Your task to perform on an android device: turn off sleep mode Image 0: 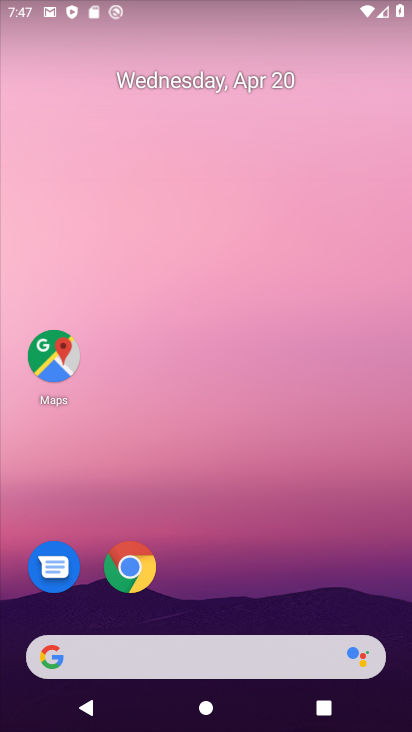
Step 0: drag from (177, 35) to (211, 15)
Your task to perform on an android device: turn off sleep mode Image 1: 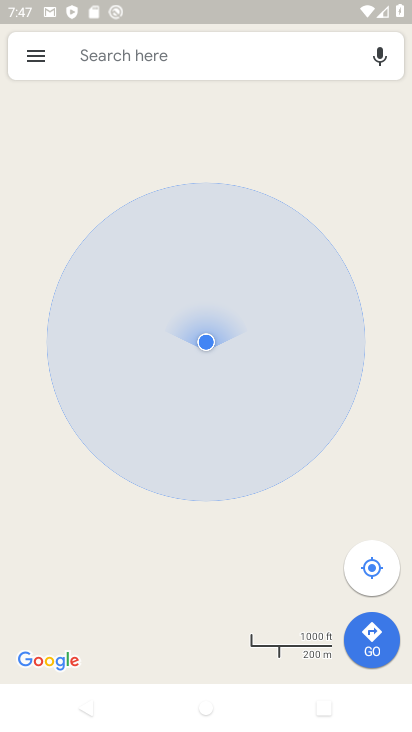
Step 1: press home button
Your task to perform on an android device: turn off sleep mode Image 2: 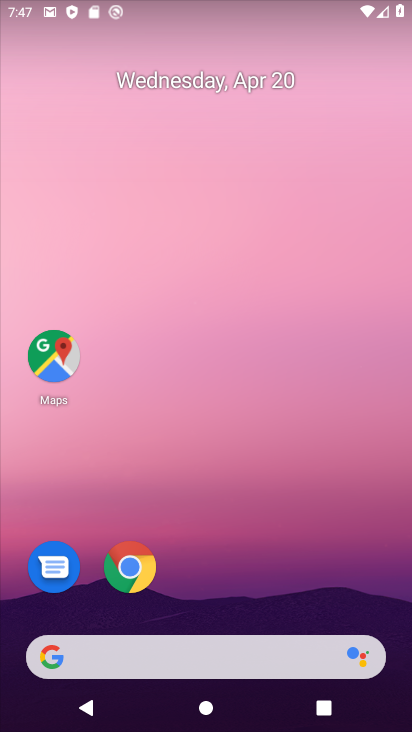
Step 2: click (176, 177)
Your task to perform on an android device: turn off sleep mode Image 3: 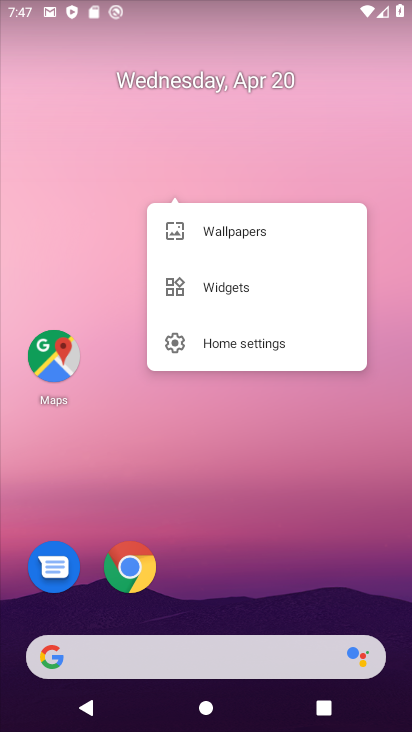
Step 3: drag from (116, 429) to (49, 107)
Your task to perform on an android device: turn off sleep mode Image 4: 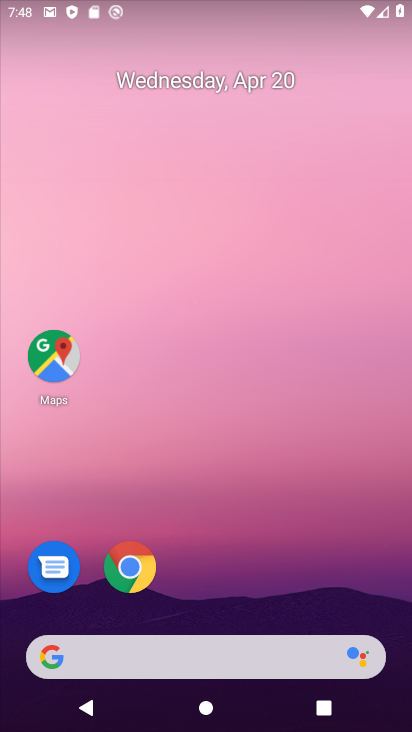
Step 4: drag from (204, 635) to (168, 161)
Your task to perform on an android device: turn off sleep mode Image 5: 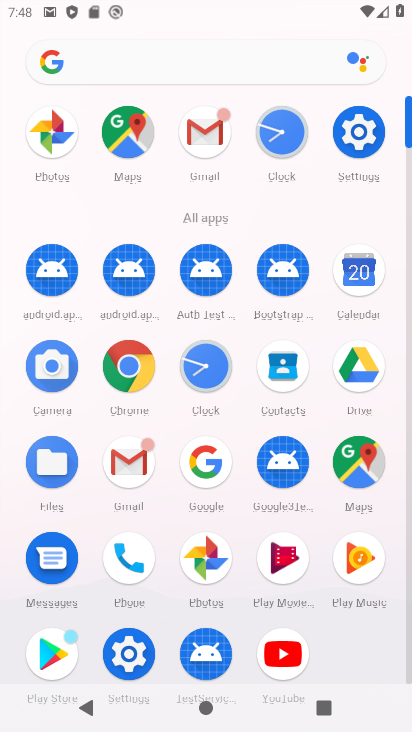
Step 5: click (373, 120)
Your task to perform on an android device: turn off sleep mode Image 6: 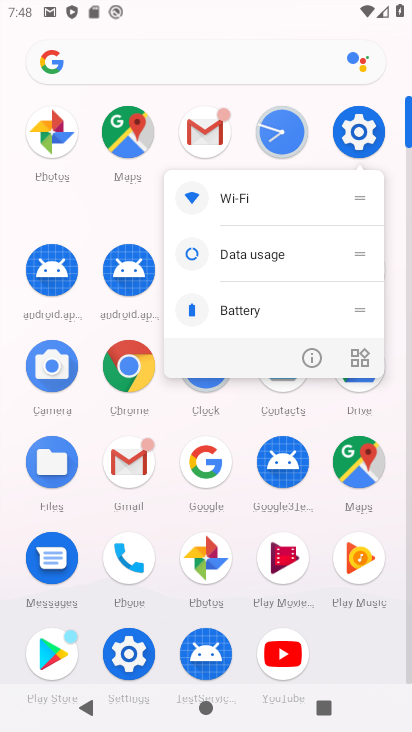
Step 6: click (373, 120)
Your task to perform on an android device: turn off sleep mode Image 7: 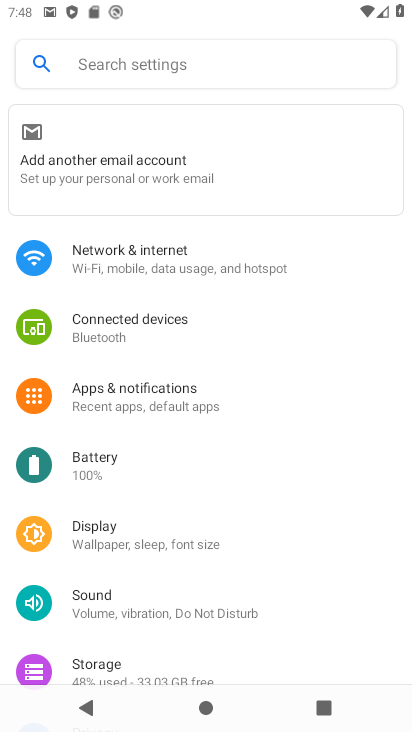
Step 7: click (150, 542)
Your task to perform on an android device: turn off sleep mode Image 8: 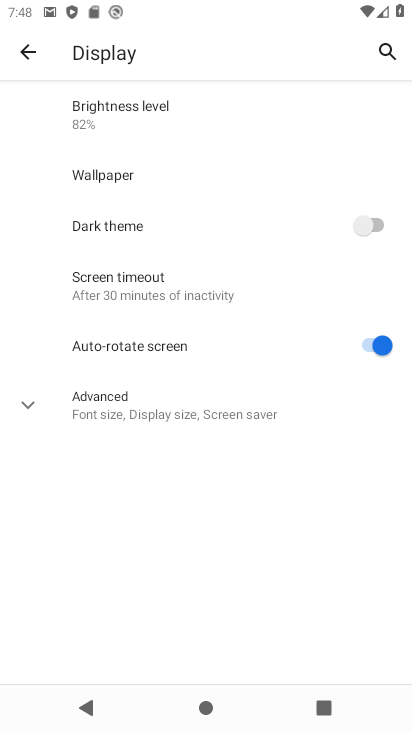
Step 8: click (153, 399)
Your task to perform on an android device: turn off sleep mode Image 9: 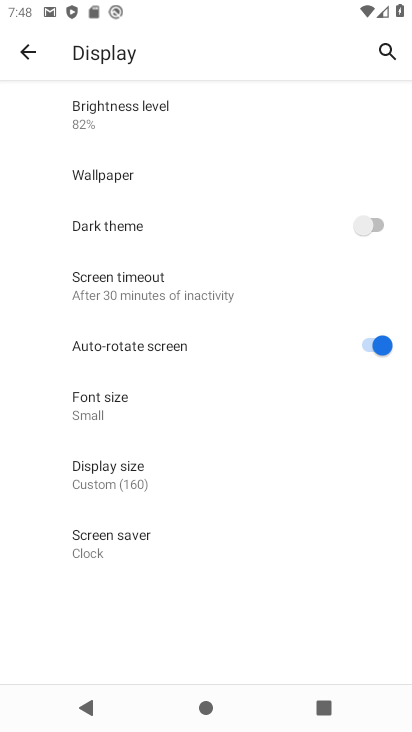
Step 9: task complete